Your task to perform on an android device: see creations saved in the google photos Image 0: 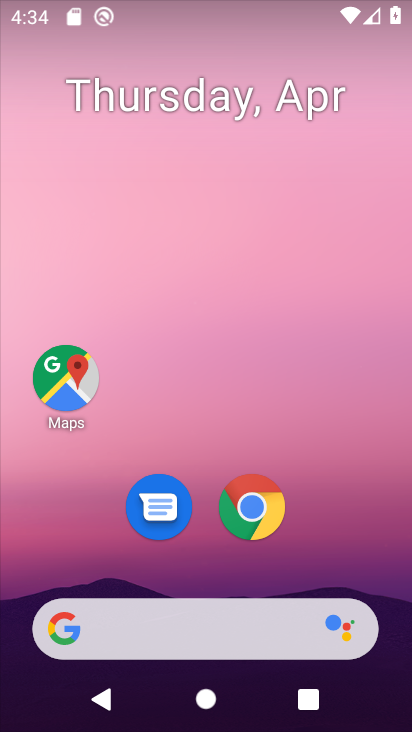
Step 0: drag from (207, 696) to (188, 141)
Your task to perform on an android device: see creations saved in the google photos Image 1: 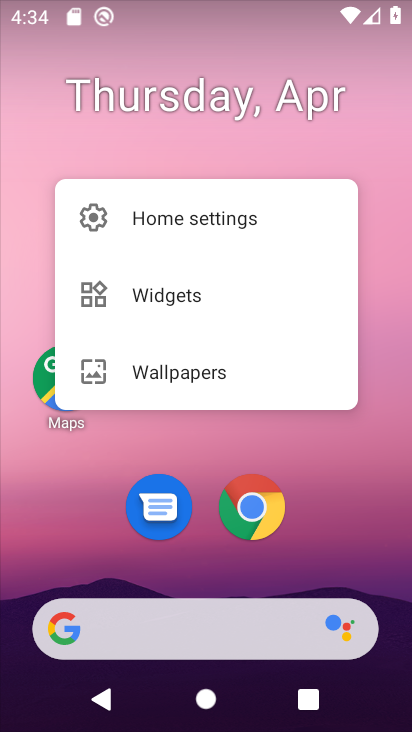
Step 1: click (197, 446)
Your task to perform on an android device: see creations saved in the google photos Image 2: 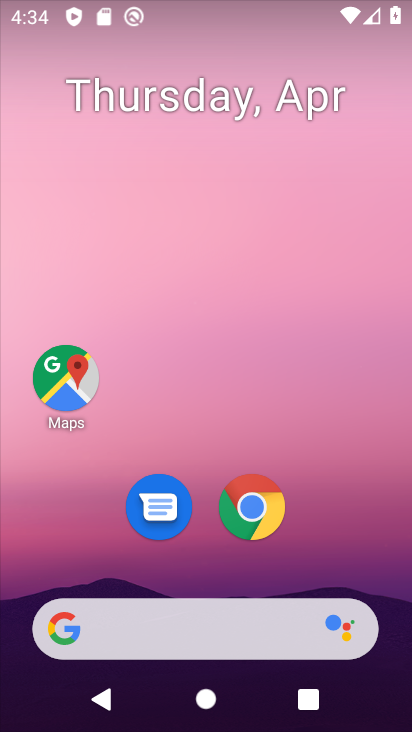
Step 2: drag from (217, 565) to (218, 139)
Your task to perform on an android device: see creations saved in the google photos Image 3: 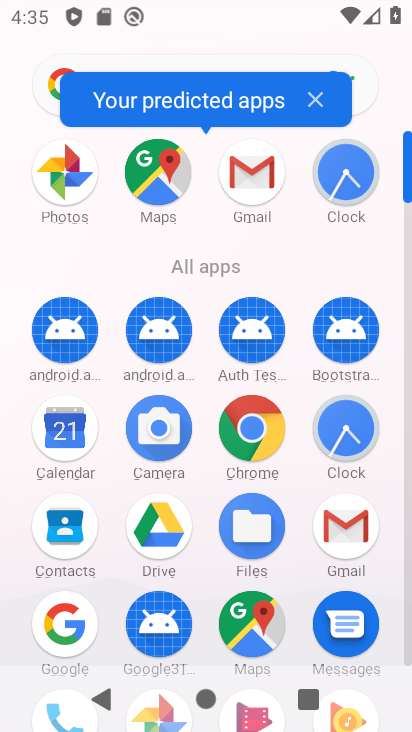
Step 3: click (60, 177)
Your task to perform on an android device: see creations saved in the google photos Image 4: 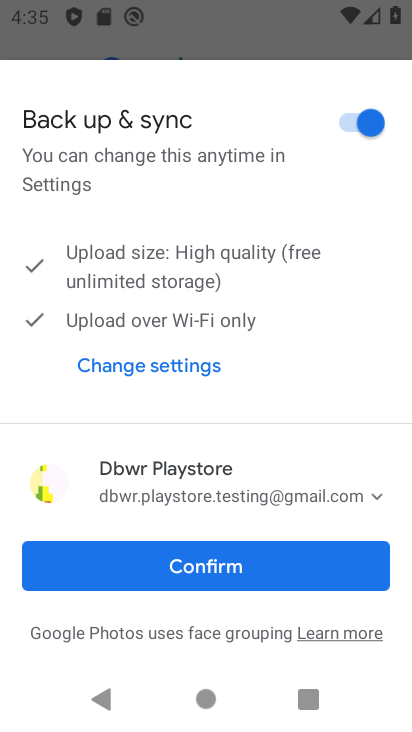
Step 4: click (203, 564)
Your task to perform on an android device: see creations saved in the google photos Image 5: 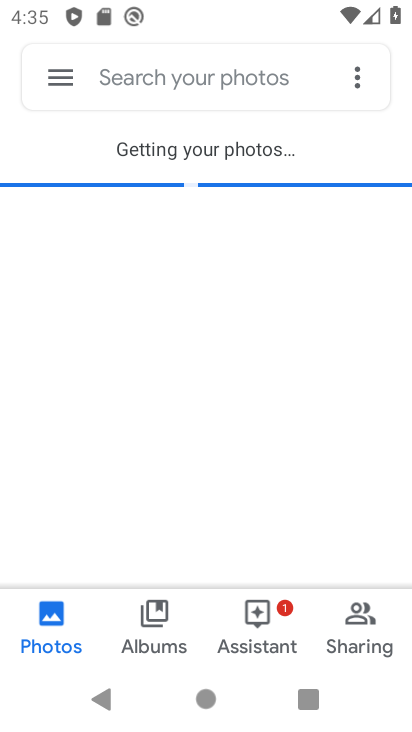
Step 5: click (193, 76)
Your task to perform on an android device: see creations saved in the google photos Image 6: 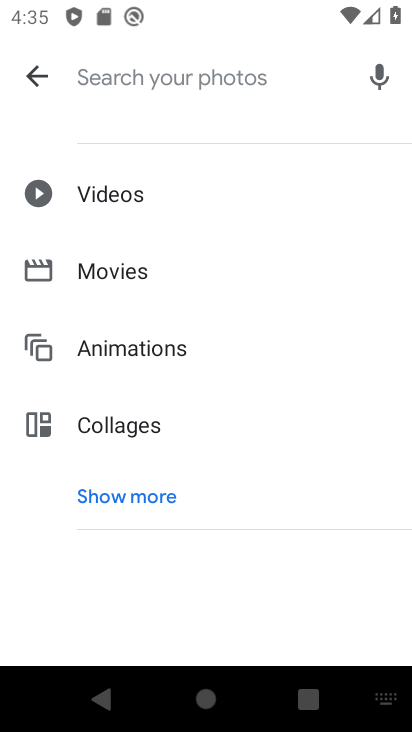
Step 6: click (130, 492)
Your task to perform on an android device: see creations saved in the google photos Image 7: 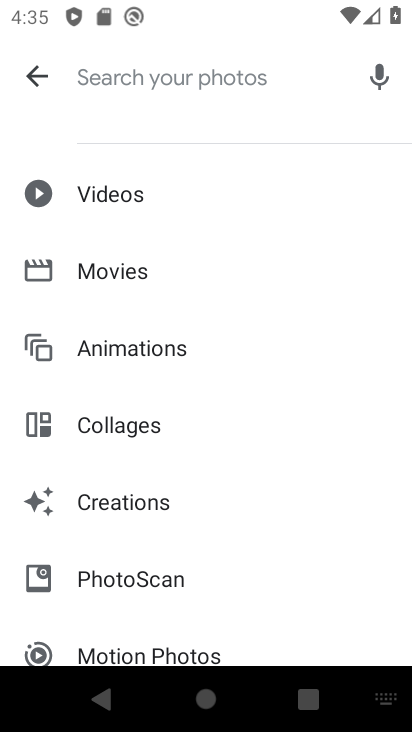
Step 7: drag from (162, 634) to (154, 228)
Your task to perform on an android device: see creations saved in the google photos Image 8: 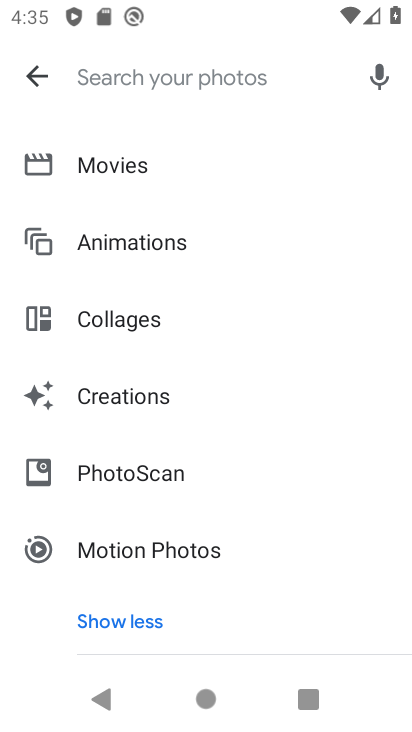
Step 8: click (99, 391)
Your task to perform on an android device: see creations saved in the google photos Image 9: 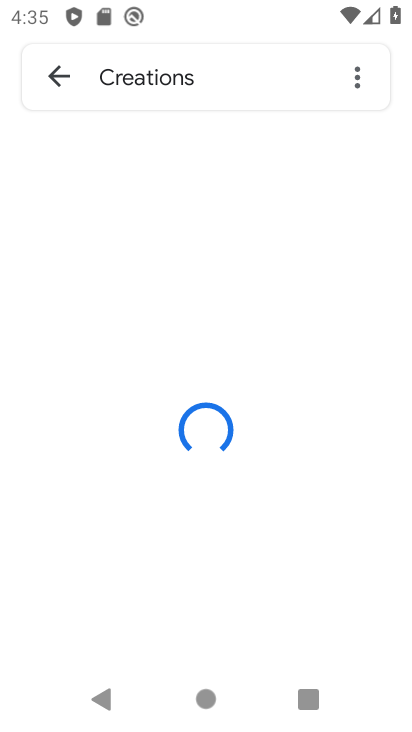
Step 9: task complete